Your task to perform on an android device: set an alarm Image 0: 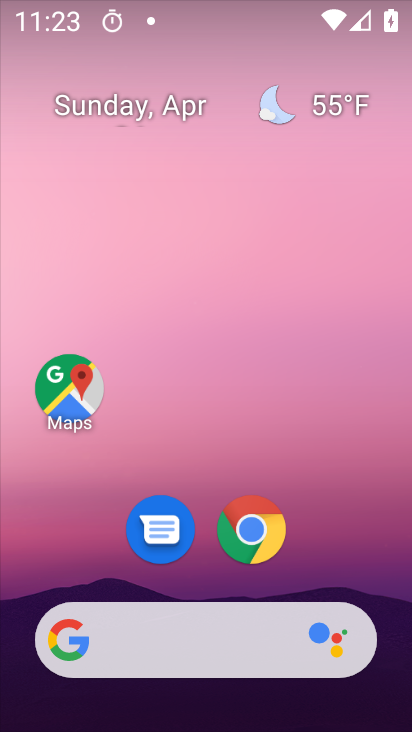
Step 0: drag from (197, 575) to (187, 50)
Your task to perform on an android device: set an alarm Image 1: 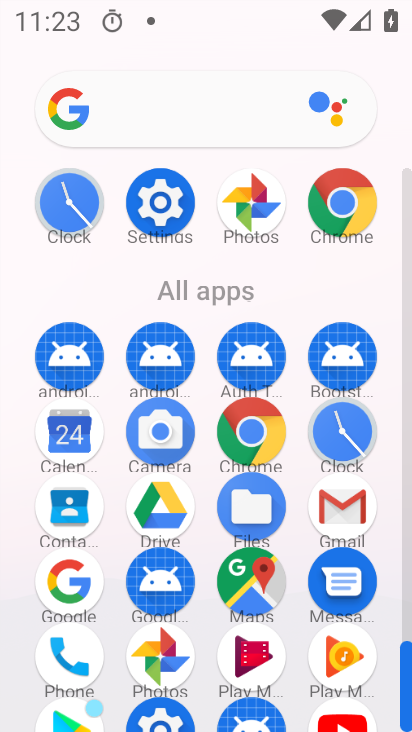
Step 1: click (357, 431)
Your task to perform on an android device: set an alarm Image 2: 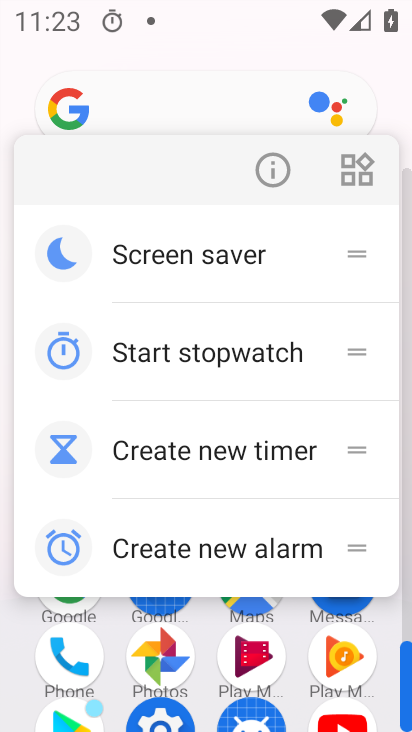
Step 2: click (380, 652)
Your task to perform on an android device: set an alarm Image 3: 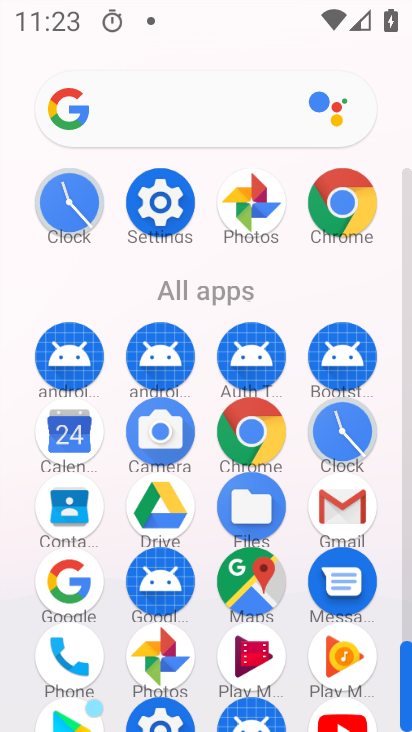
Step 3: click (340, 426)
Your task to perform on an android device: set an alarm Image 4: 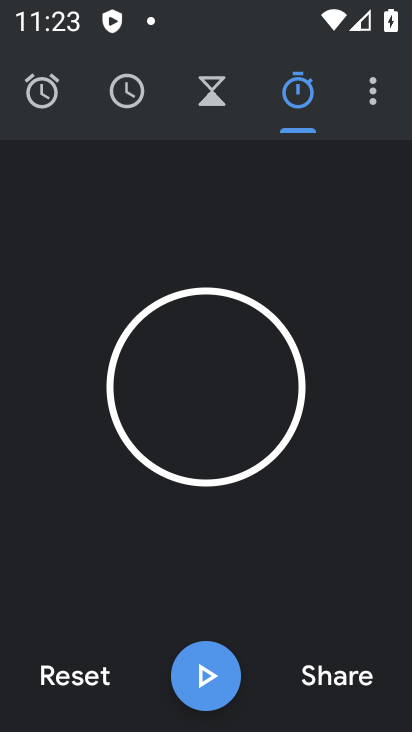
Step 4: click (39, 72)
Your task to perform on an android device: set an alarm Image 5: 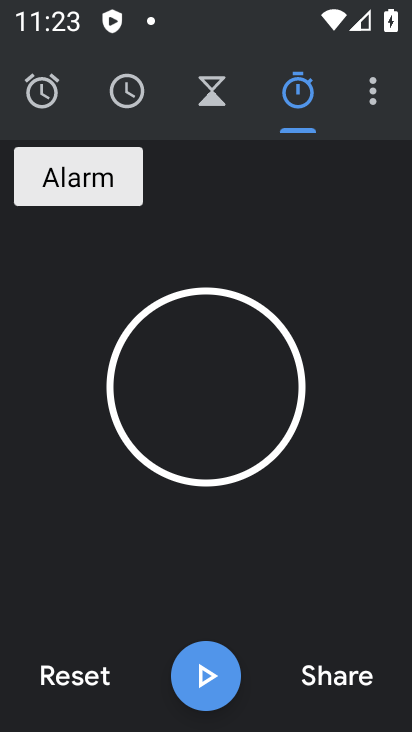
Step 5: click (74, 168)
Your task to perform on an android device: set an alarm Image 6: 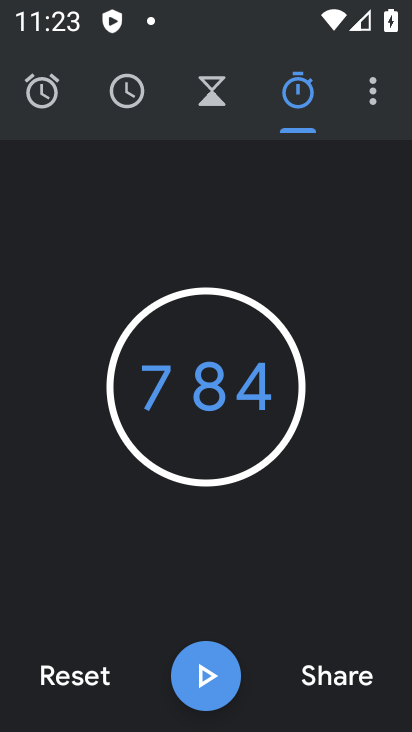
Step 6: click (52, 115)
Your task to perform on an android device: set an alarm Image 7: 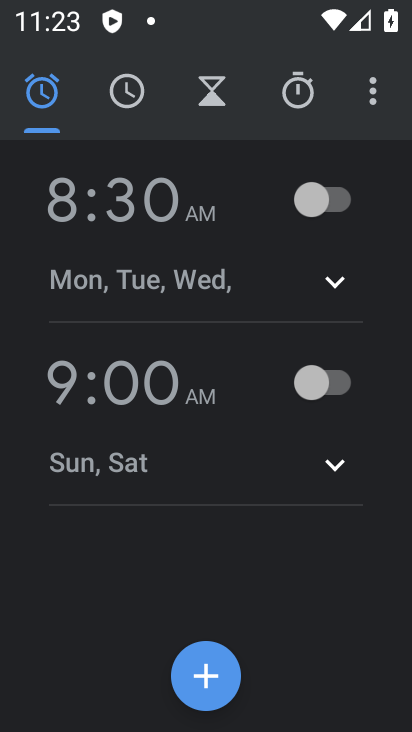
Step 7: click (202, 664)
Your task to perform on an android device: set an alarm Image 8: 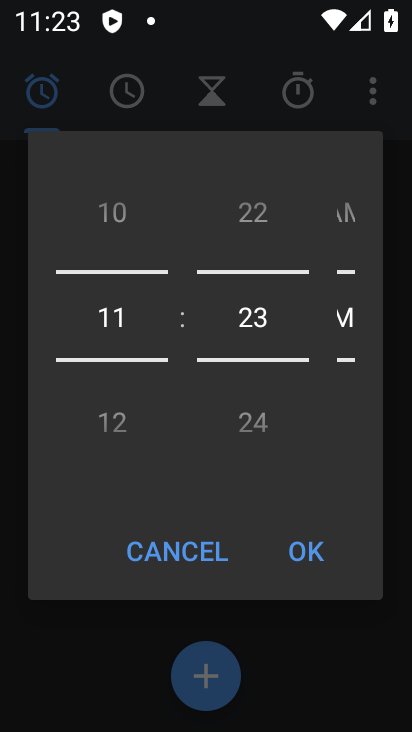
Step 8: click (304, 552)
Your task to perform on an android device: set an alarm Image 9: 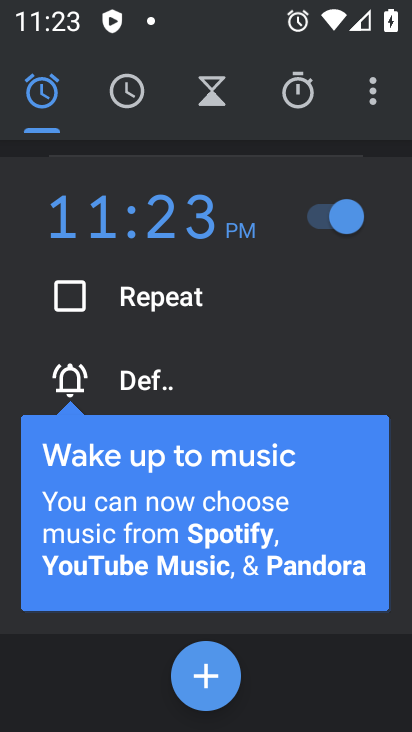
Step 9: task complete